Your task to perform on an android device: Open eBay Image 0: 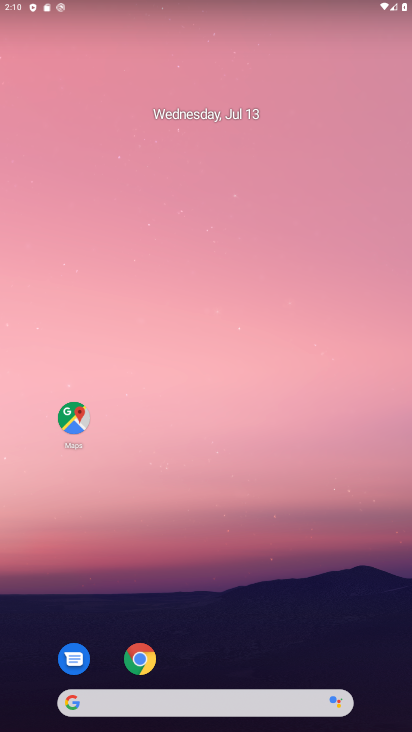
Step 0: click (137, 656)
Your task to perform on an android device: Open eBay Image 1: 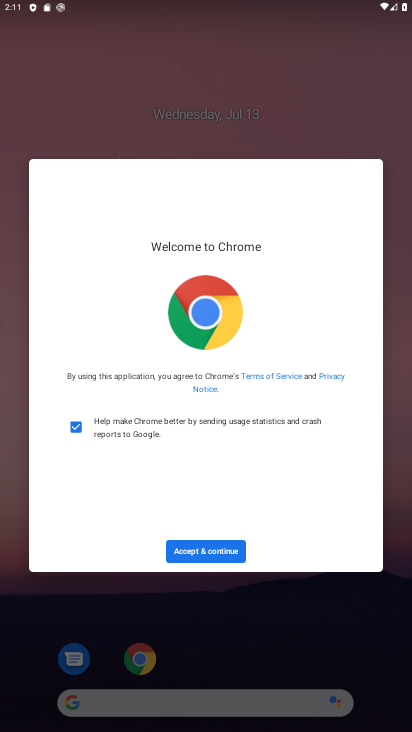
Step 1: click (185, 555)
Your task to perform on an android device: Open eBay Image 2: 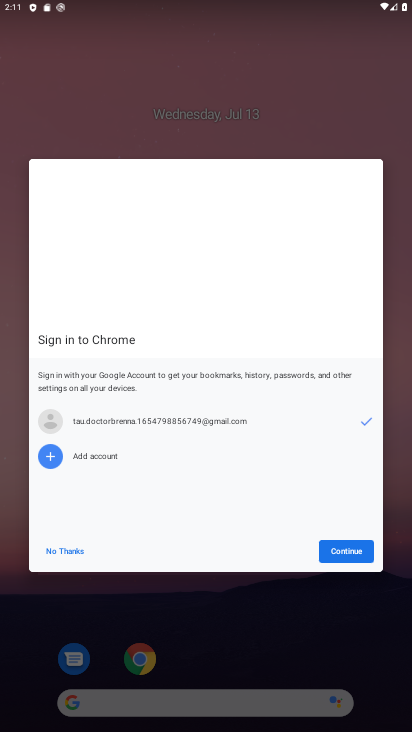
Step 2: click (342, 542)
Your task to perform on an android device: Open eBay Image 3: 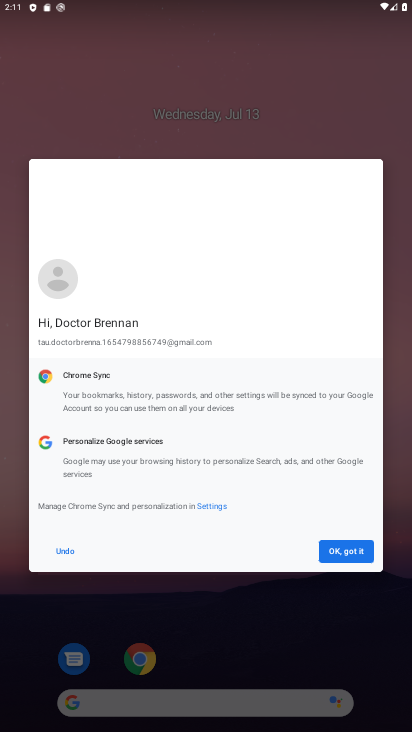
Step 3: click (342, 542)
Your task to perform on an android device: Open eBay Image 4: 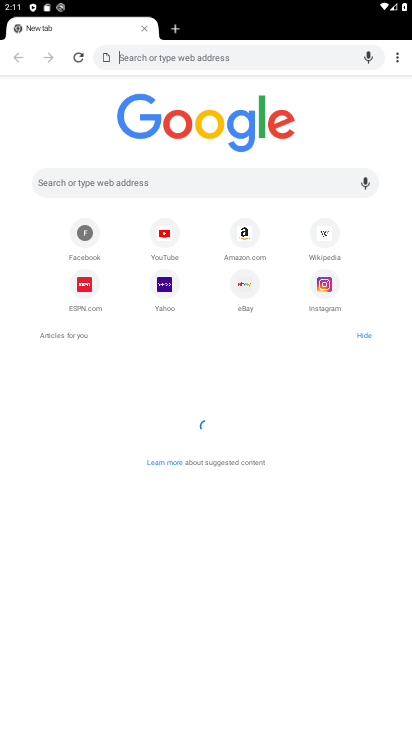
Step 4: click (246, 289)
Your task to perform on an android device: Open eBay Image 5: 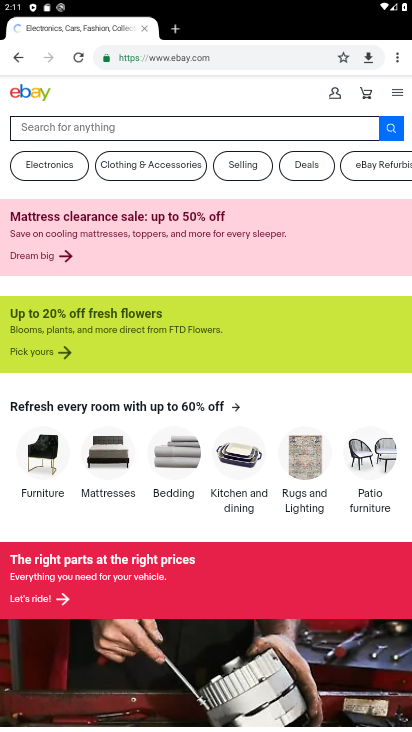
Step 5: task complete